Your task to perform on an android device: toggle priority inbox in the gmail app Image 0: 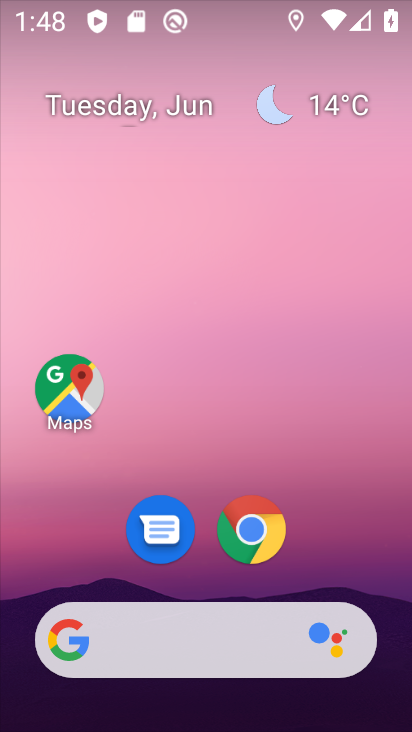
Step 0: drag from (84, 599) to (190, 124)
Your task to perform on an android device: toggle priority inbox in the gmail app Image 1: 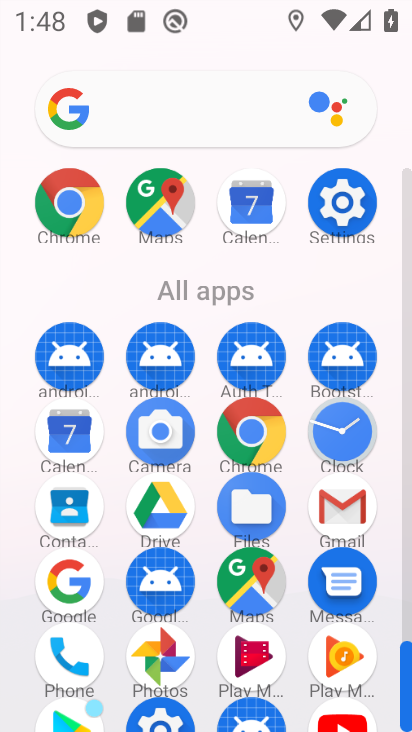
Step 1: click (328, 502)
Your task to perform on an android device: toggle priority inbox in the gmail app Image 2: 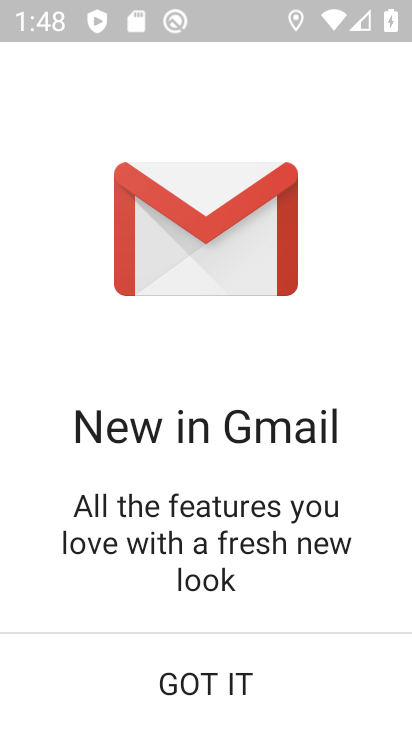
Step 2: click (188, 662)
Your task to perform on an android device: toggle priority inbox in the gmail app Image 3: 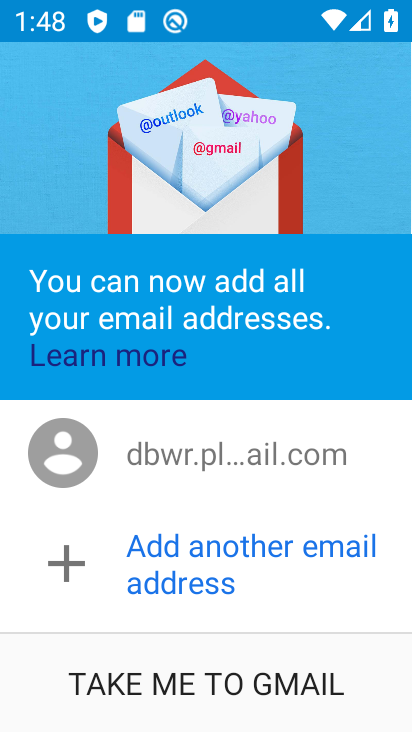
Step 3: click (218, 684)
Your task to perform on an android device: toggle priority inbox in the gmail app Image 4: 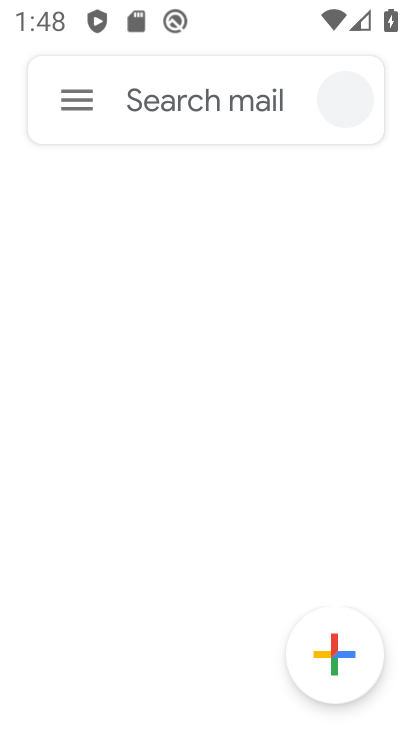
Step 4: click (82, 94)
Your task to perform on an android device: toggle priority inbox in the gmail app Image 5: 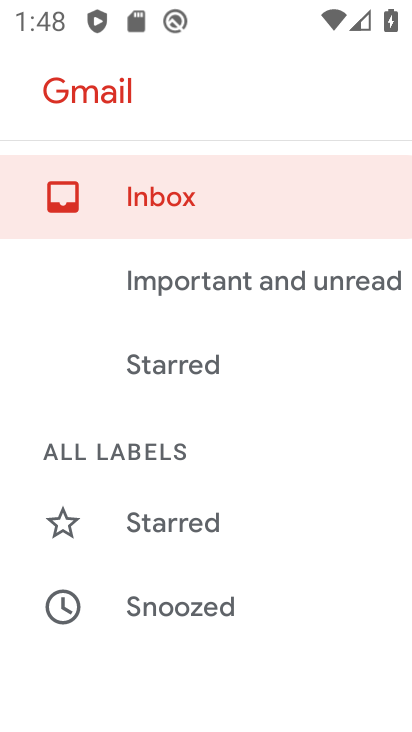
Step 5: drag from (171, 564) to (331, 29)
Your task to perform on an android device: toggle priority inbox in the gmail app Image 6: 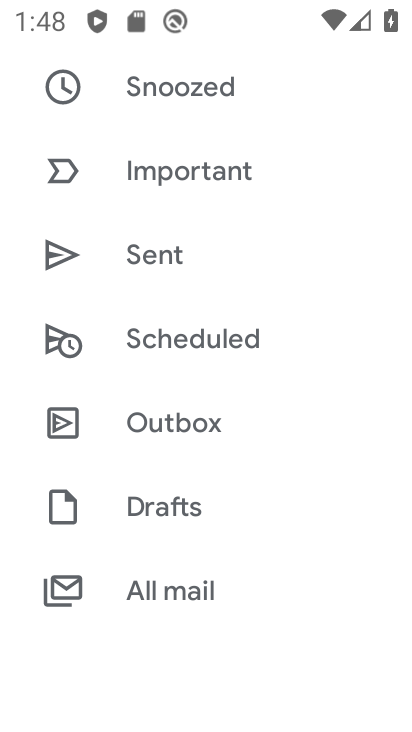
Step 6: drag from (180, 564) to (309, 143)
Your task to perform on an android device: toggle priority inbox in the gmail app Image 7: 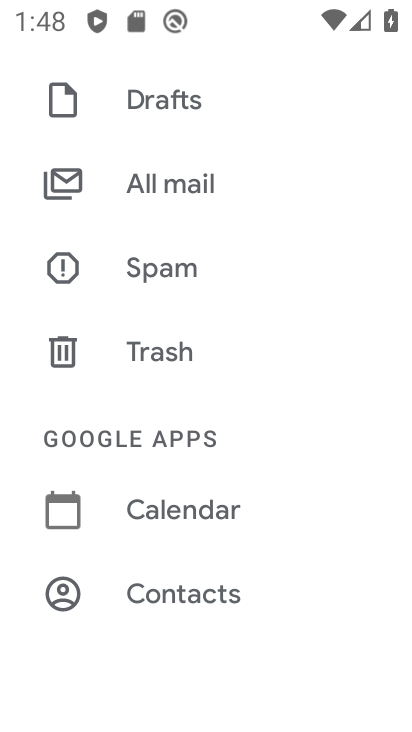
Step 7: drag from (174, 542) to (291, 125)
Your task to perform on an android device: toggle priority inbox in the gmail app Image 8: 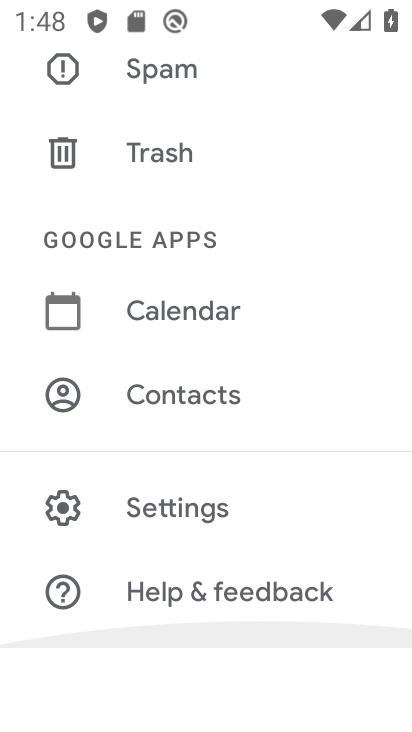
Step 8: click (182, 510)
Your task to perform on an android device: toggle priority inbox in the gmail app Image 9: 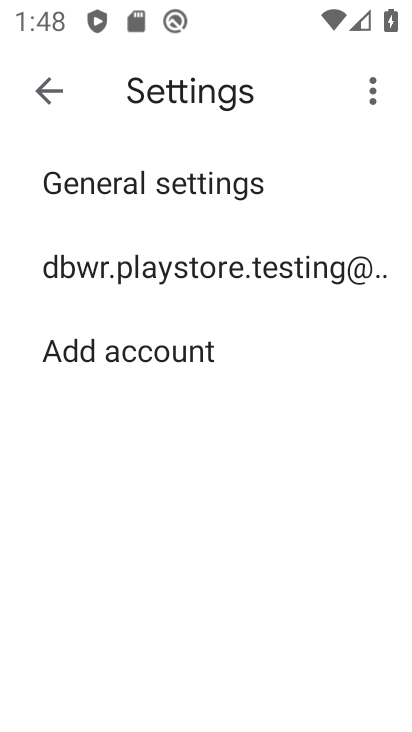
Step 9: click (313, 277)
Your task to perform on an android device: toggle priority inbox in the gmail app Image 10: 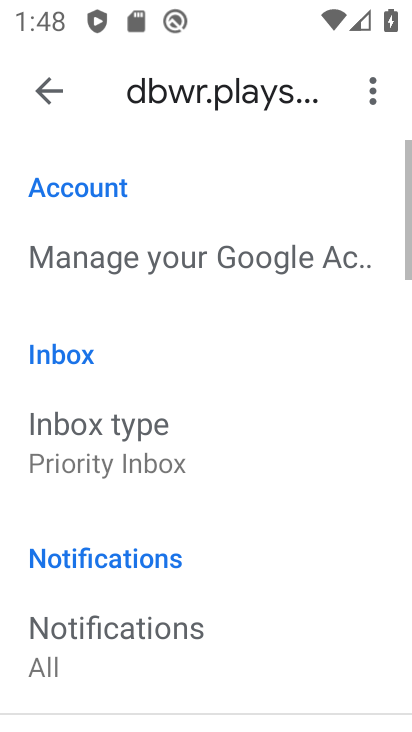
Step 10: drag from (165, 637) to (260, 579)
Your task to perform on an android device: toggle priority inbox in the gmail app Image 11: 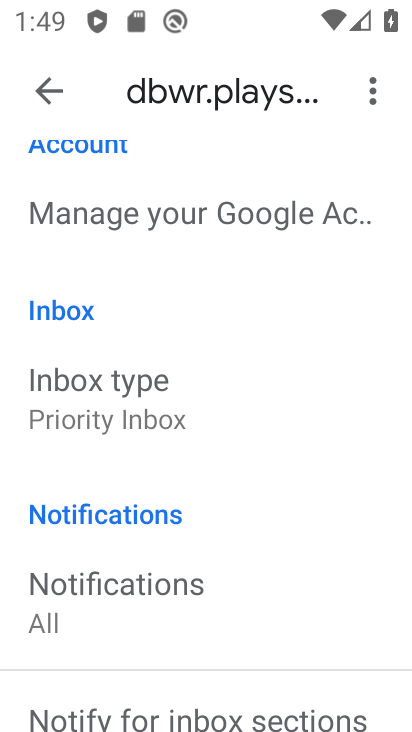
Step 11: click (197, 426)
Your task to perform on an android device: toggle priority inbox in the gmail app Image 12: 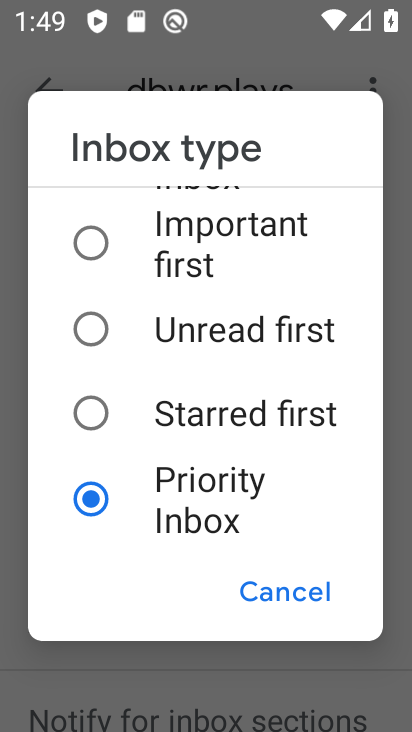
Step 12: drag from (223, 243) to (219, 594)
Your task to perform on an android device: toggle priority inbox in the gmail app Image 13: 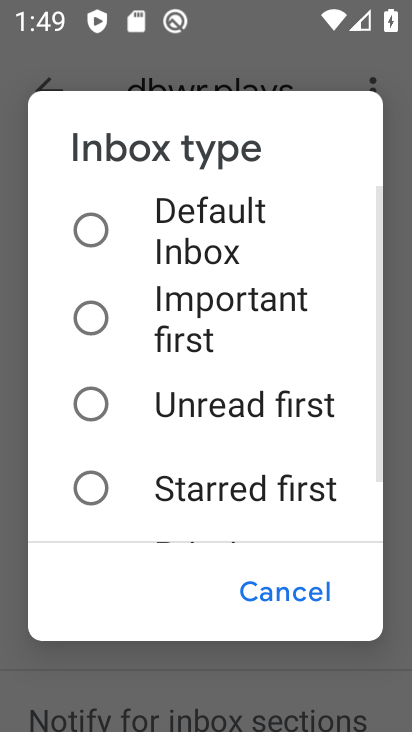
Step 13: click (267, 251)
Your task to perform on an android device: toggle priority inbox in the gmail app Image 14: 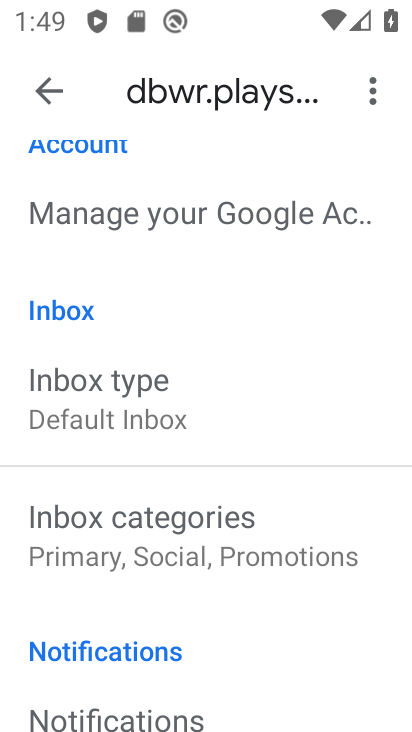
Step 14: task complete